Your task to perform on an android device: Open Chrome and go to settings Image 0: 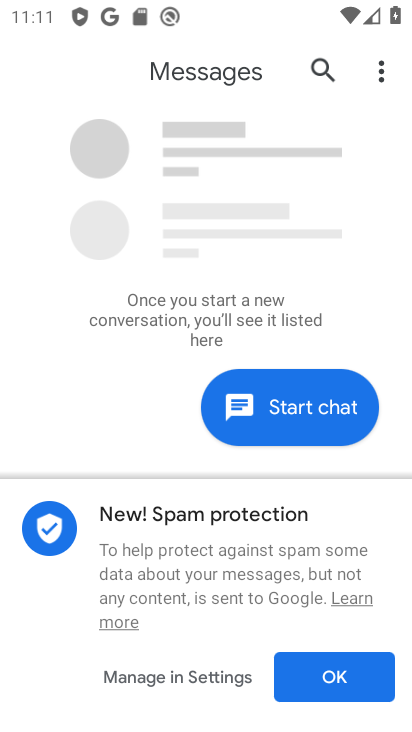
Step 0: press home button
Your task to perform on an android device: Open Chrome and go to settings Image 1: 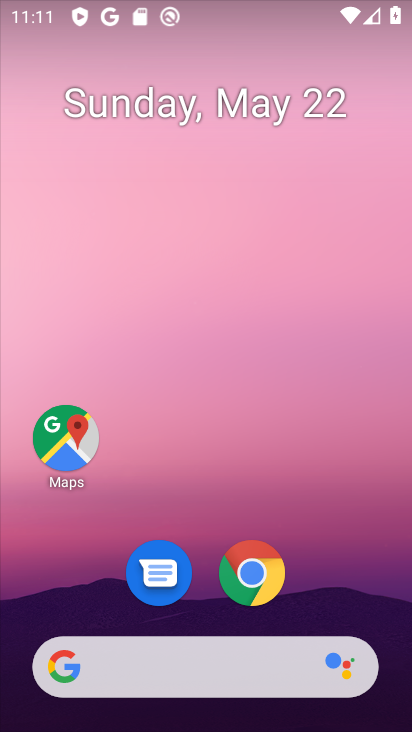
Step 1: click (257, 588)
Your task to perform on an android device: Open Chrome and go to settings Image 2: 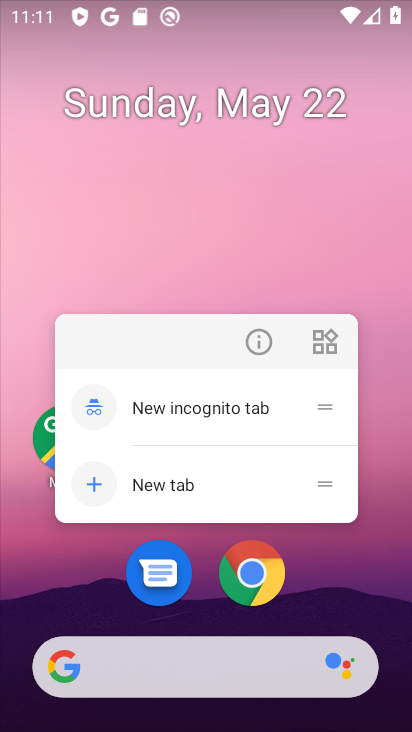
Step 2: click (246, 577)
Your task to perform on an android device: Open Chrome and go to settings Image 3: 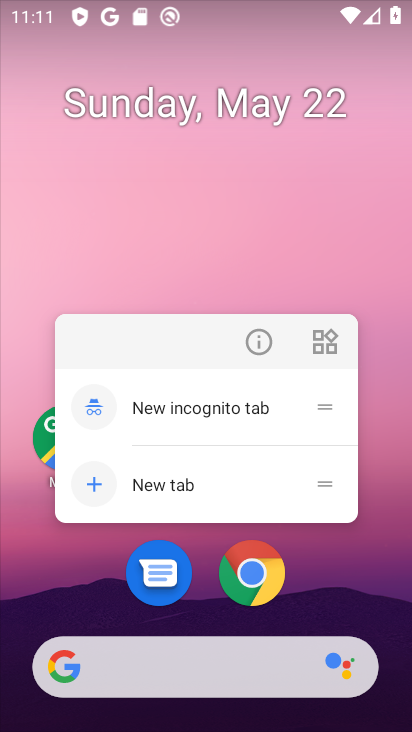
Step 3: click (254, 585)
Your task to perform on an android device: Open Chrome and go to settings Image 4: 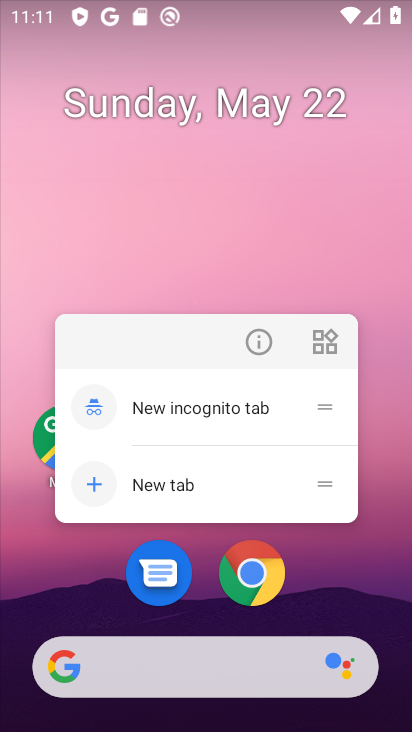
Step 4: click (254, 587)
Your task to perform on an android device: Open Chrome and go to settings Image 5: 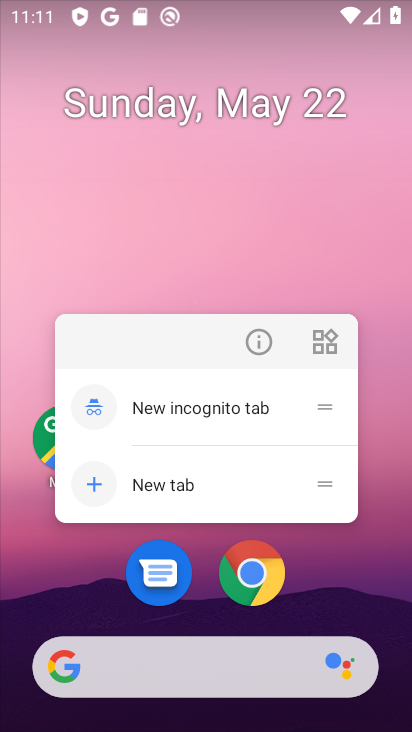
Step 5: drag from (204, 657) to (267, 131)
Your task to perform on an android device: Open Chrome and go to settings Image 6: 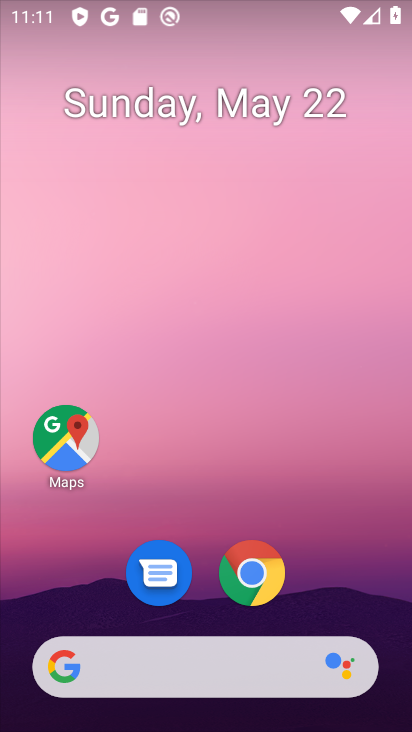
Step 6: drag from (180, 630) to (248, 95)
Your task to perform on an android device: Open Chrome and go to settings Image 7: 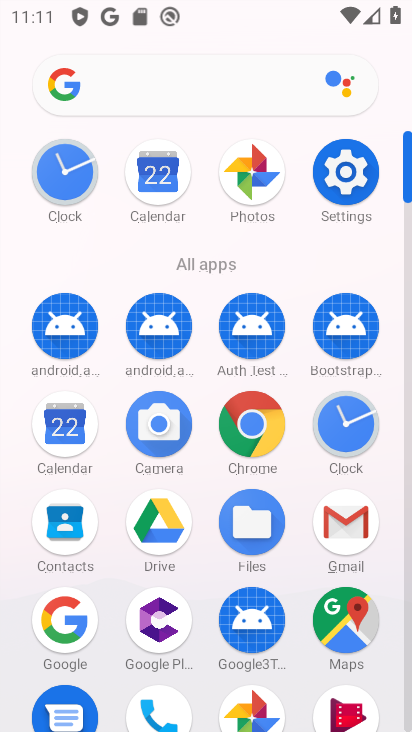
Step 7: click (251, 444)
Your task to perform on an android device: Open Chrome and go to settings Image 8: 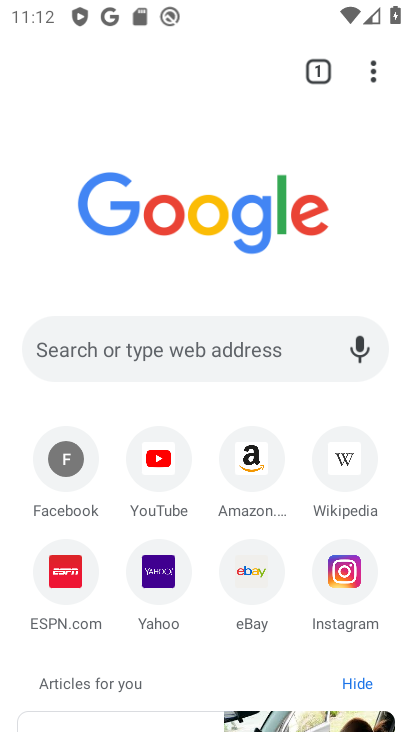
Step 8: task complete